Your task to perform on an android device: Go to Wikipedia Image 0: 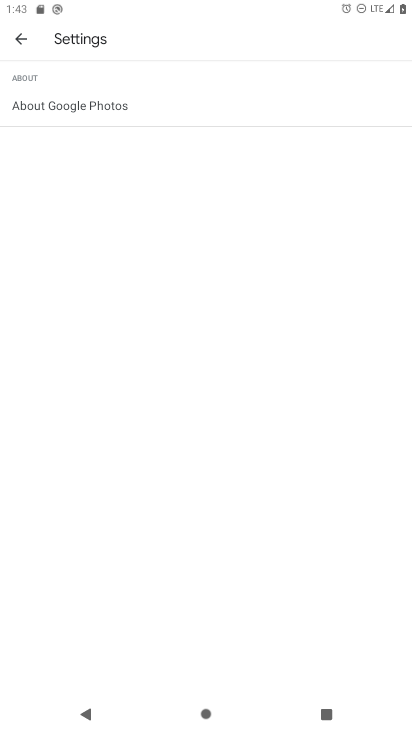
Step 0: press home button
Your task to perform on an android device: Go to Wikipedia Image 1: 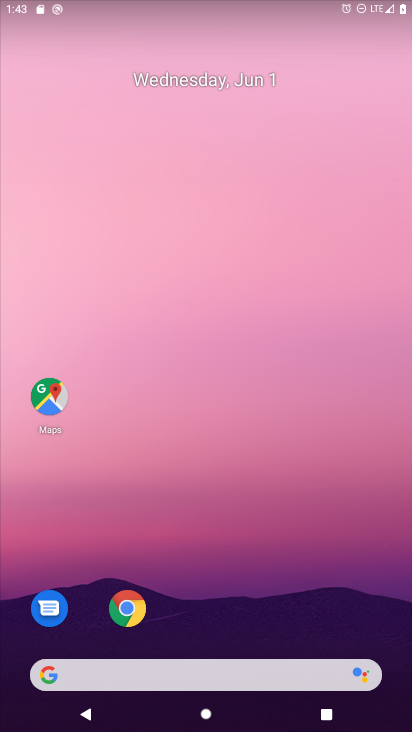
Step 1: click (134, 611)
Your task to perform on an android device: Go to Wikipedia Image 2: 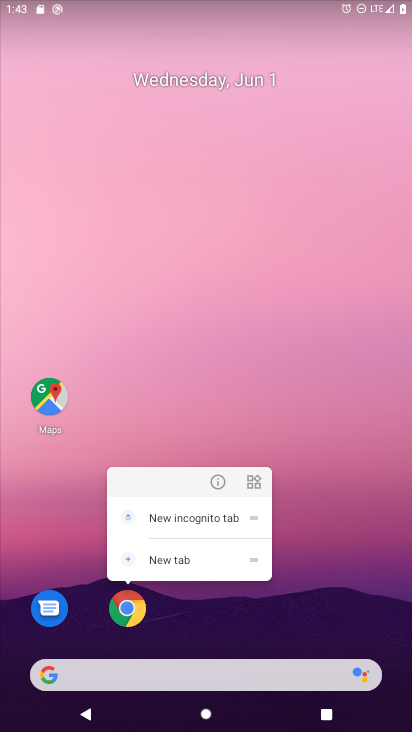
Step 2: click (119, 611)
Your task to perform on an android device: Go to Wikipedia Image 3: 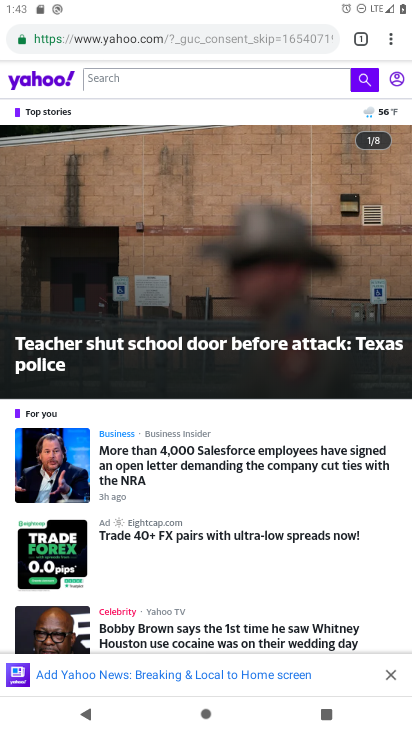
Step 3: drag from (149, 602) to (177, 446)
Your task to perform on an android device: Go to Wikipedia Image 4: 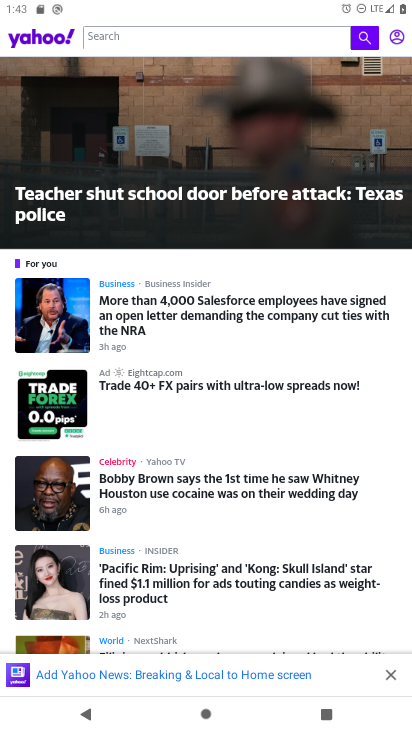
Step 4: press back button
Your task to perform on an android device: Go to Wikipedia Image 5: 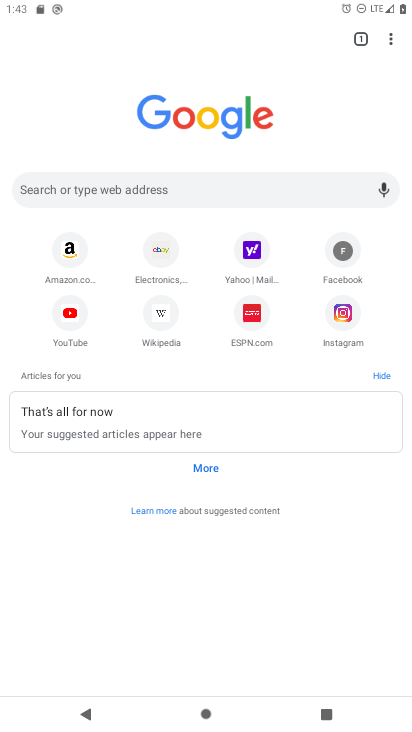
Step 5: click (158, 327)
Your task to perform on an android device: Go to Wikipedia Image 6: 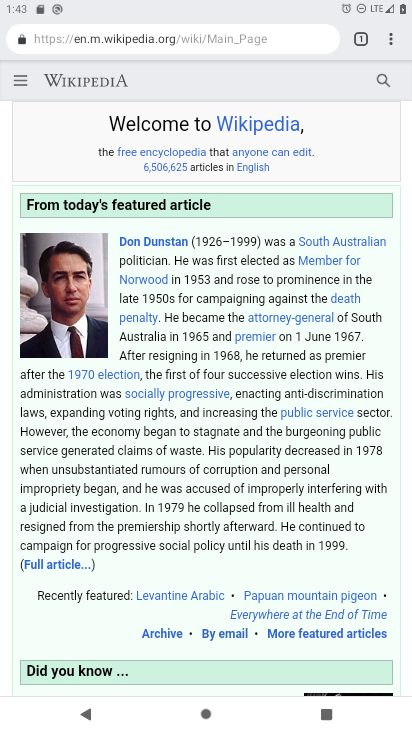
Step 6: task complete